Your task to perform on an android device: Open Wikipedia Image 0: 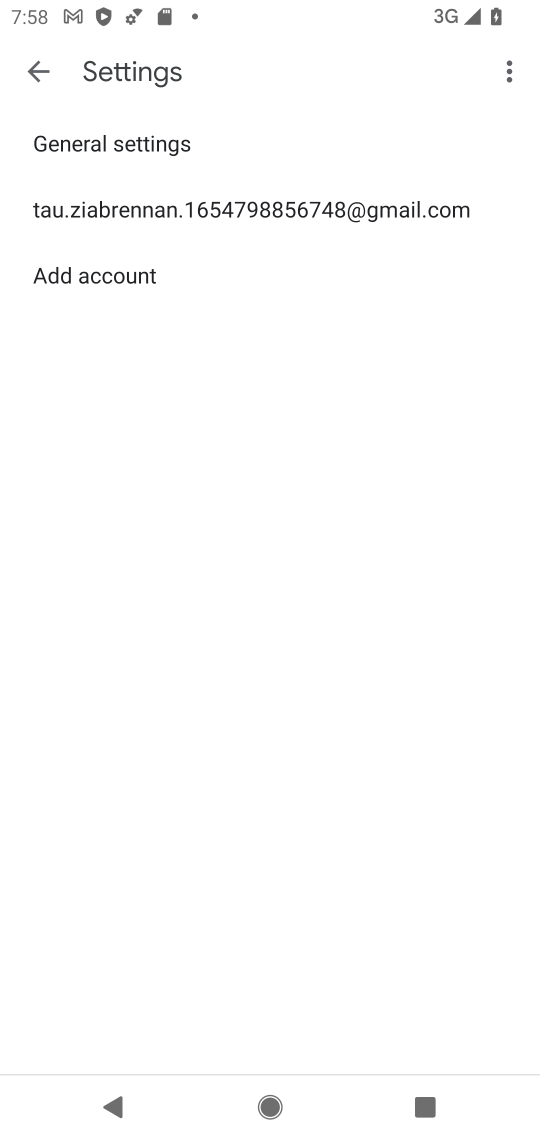
Step 0: press home button
Your task to perform on an android device: Open Wikipedia Image 1: 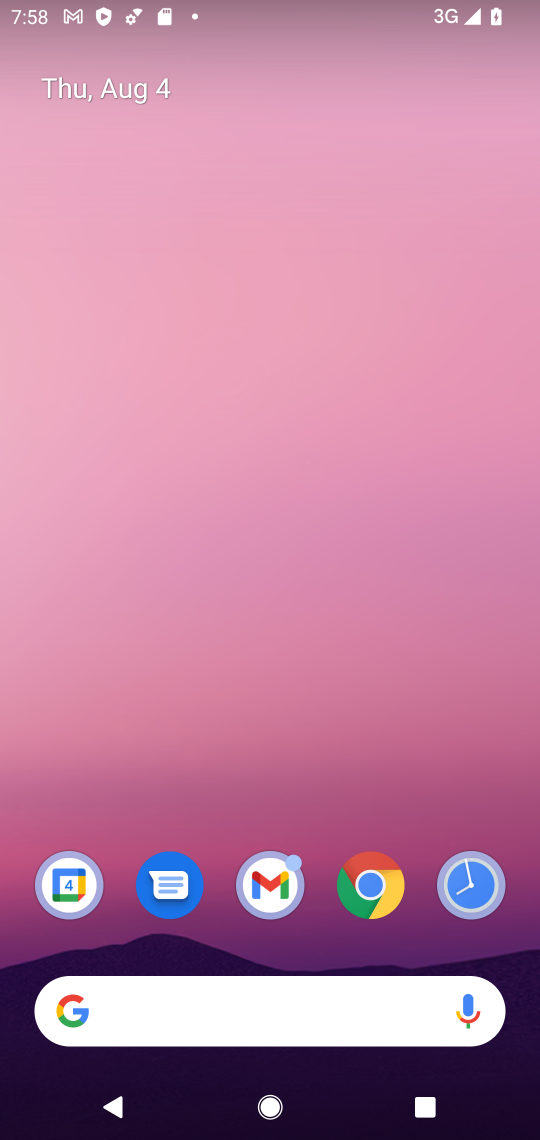
Step 1: click (398, 894)
Your task to perform on an android device: Open Wikipedia Image 2: 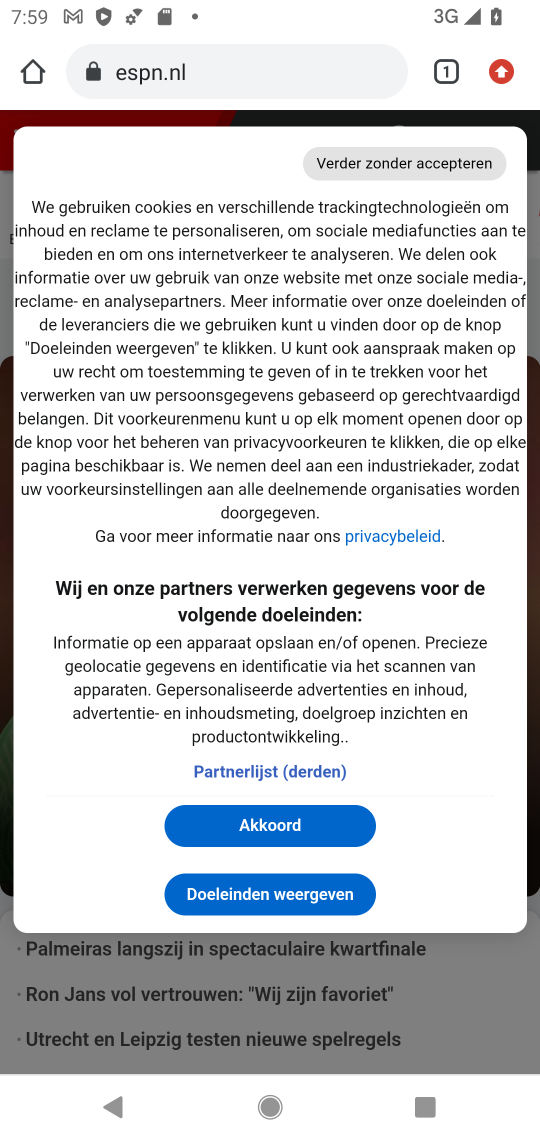
Step 2: click (317, 70)
Your task to perform on an android device: Open Wikipedia Image 3: 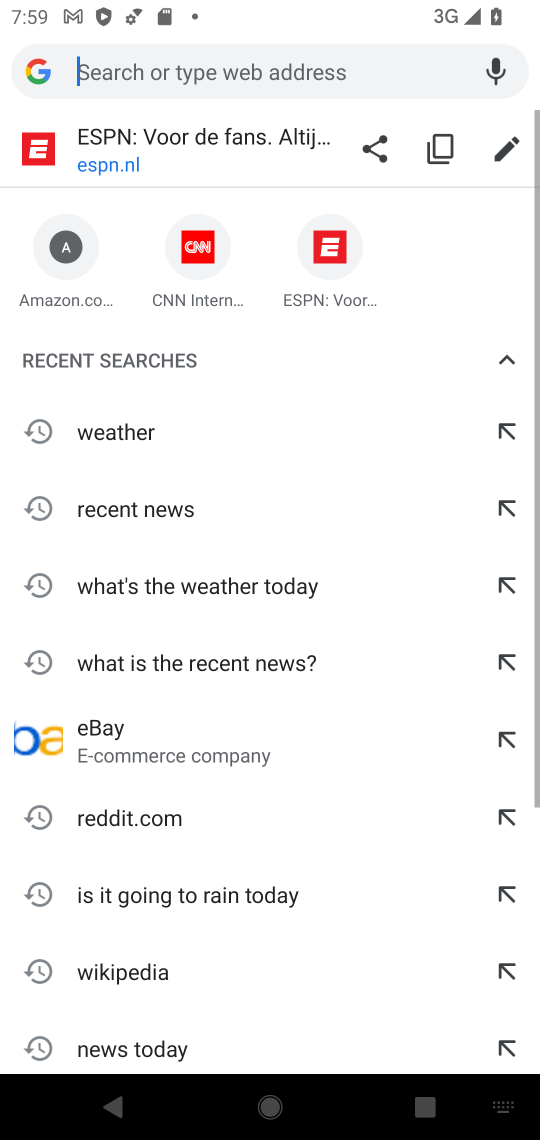
Step 3: type "Wikipedia"
Your task to perform on an android device: Open Wikipedia Image 4: 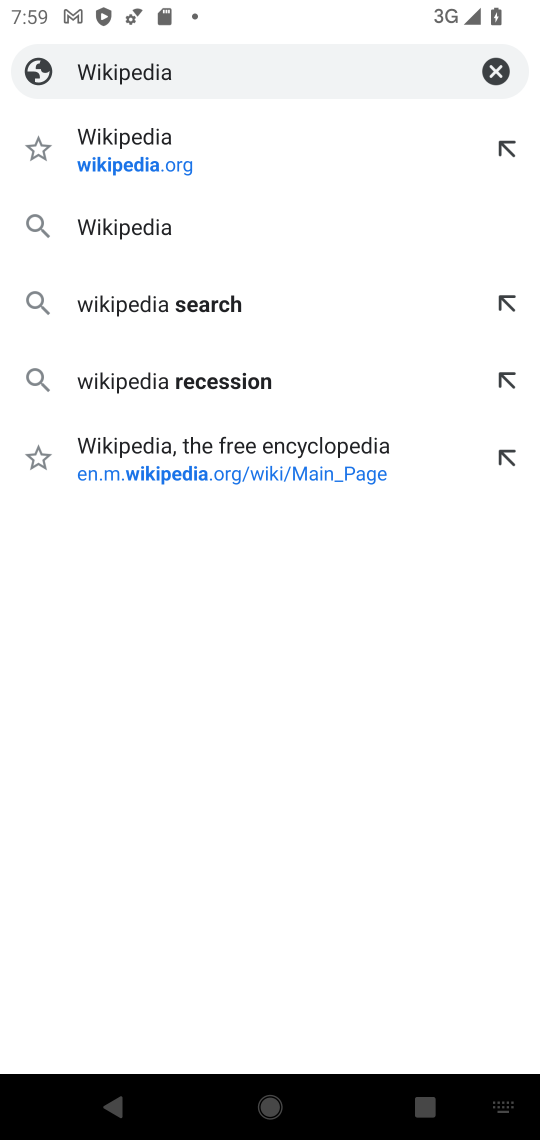
Step 4: click (135, 148)
Your task to perform on an android device: Open Wikipedia Image 5: 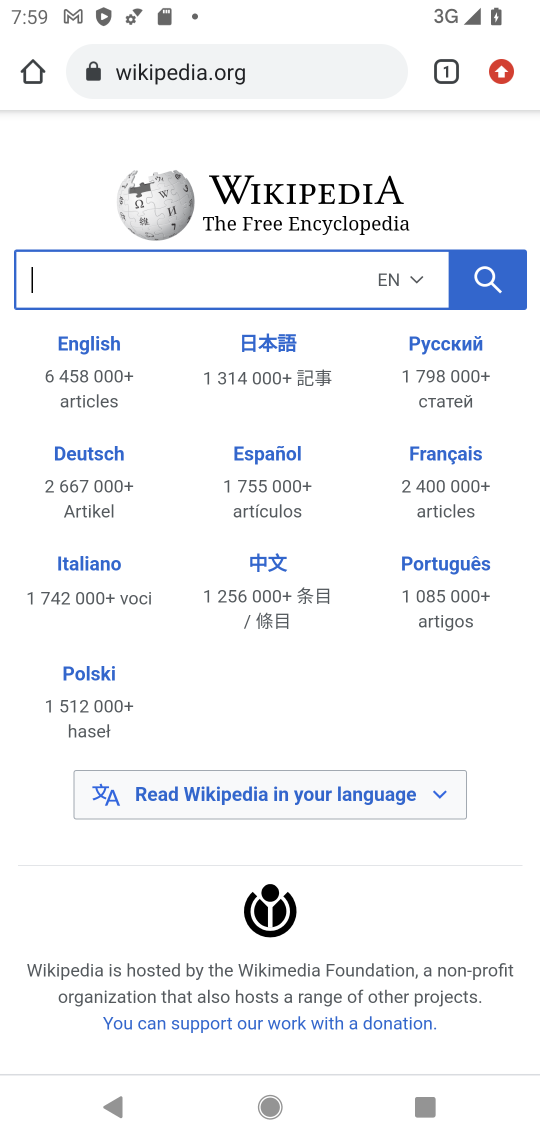
Step 5: task complete